Your task to perform on an android device: Go to eBay Image 0: 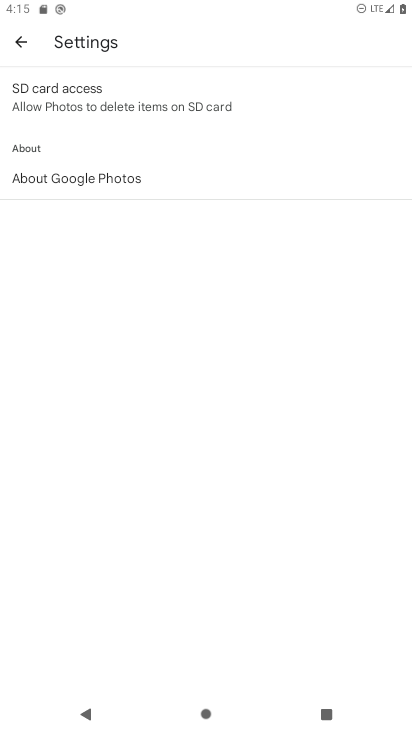
Step 0: press home button
Your task to perform on an android device: Go to eBay Image 1: 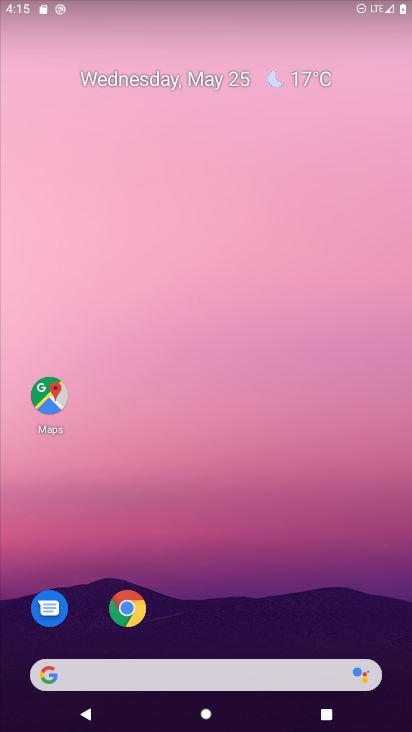
Step 1: click (132, 603)
Your task to perform on an android device: Go to eBay Image 2: 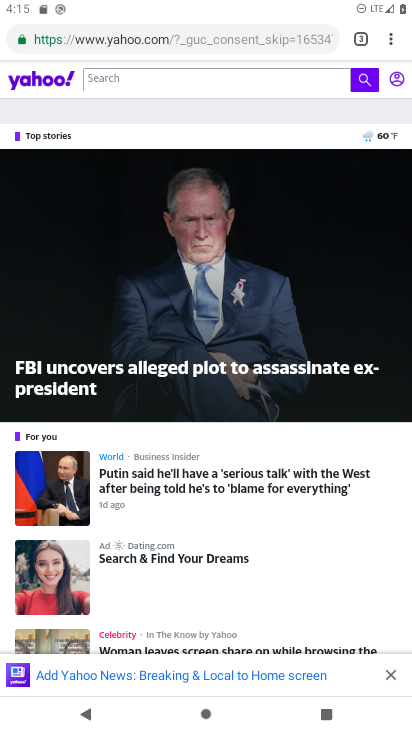
Step 2: click (204, 38)
Your task to perform on an android device: Go to eBay Image 3: 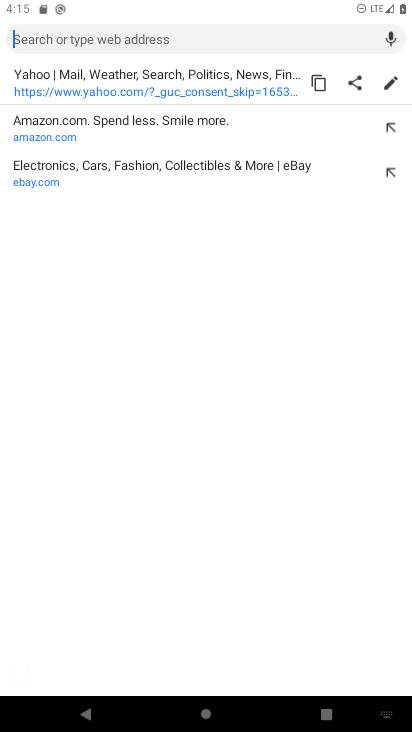
Step 3: type "ebay"
Your task to perform on an android device: Go to eBay Image 4: 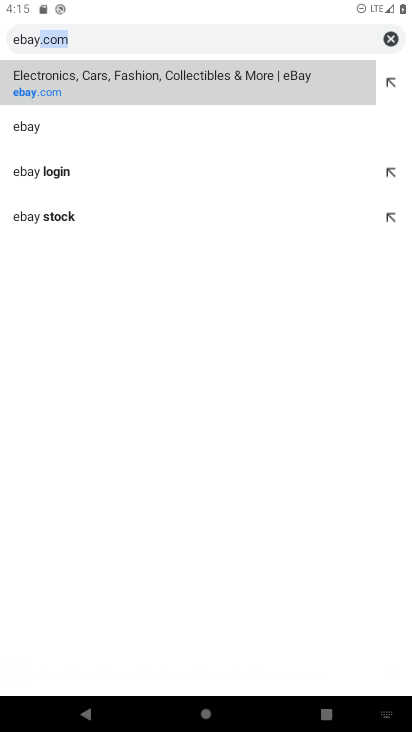
Step 4: click (82, 73)
Your task to perform on an android device: Go to eBay Image 5: 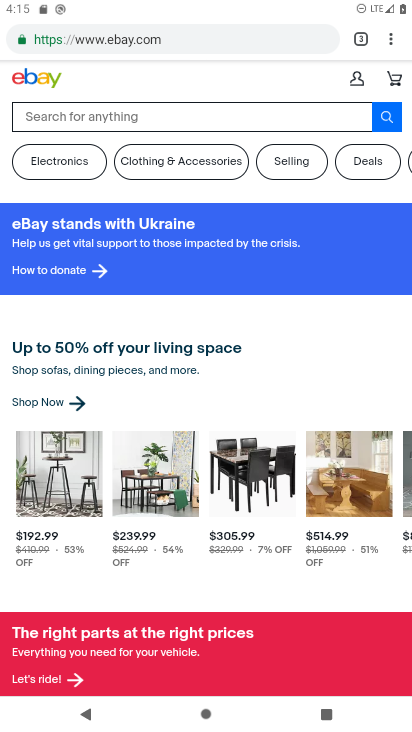
Step 5: task complete